Your task to perform on an android device: open app "Life360: Find Family & Friends" (install if not already installed), go to login, and select forgot password Image 0: 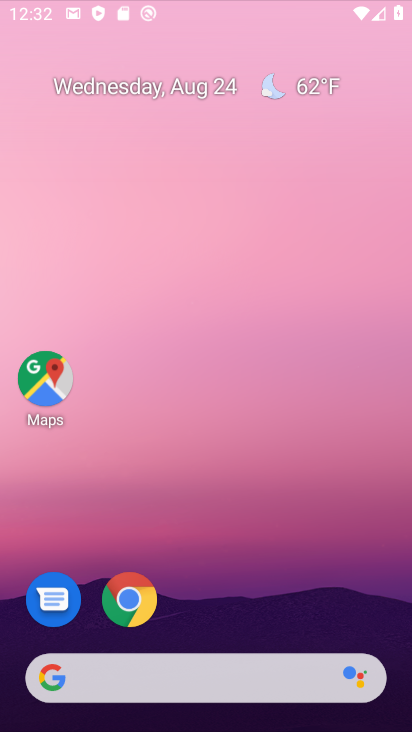
Step 0: drag from (139, 68) to (174, 21)
Your task to perform on an android device: open app "Life360: Find Family & Friends" (install if not already installed), go to login, and select forgot password Image 1: 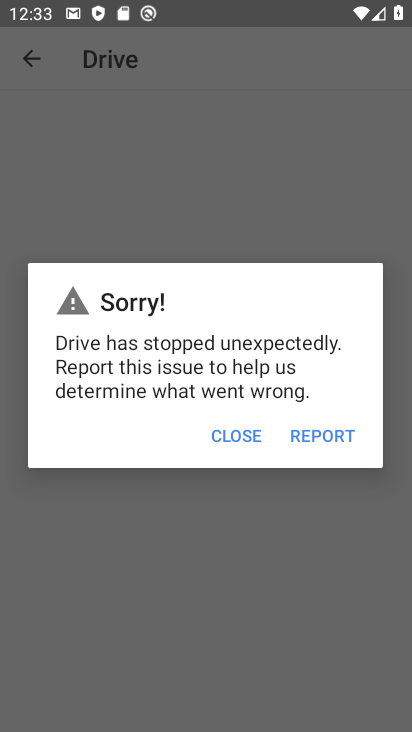
Step 1: click (358, 544)
Your task to perform on an android device: open app "Life360: Find Family & Friends" (install if not already installed), go to login, and select forgot password Image 2: 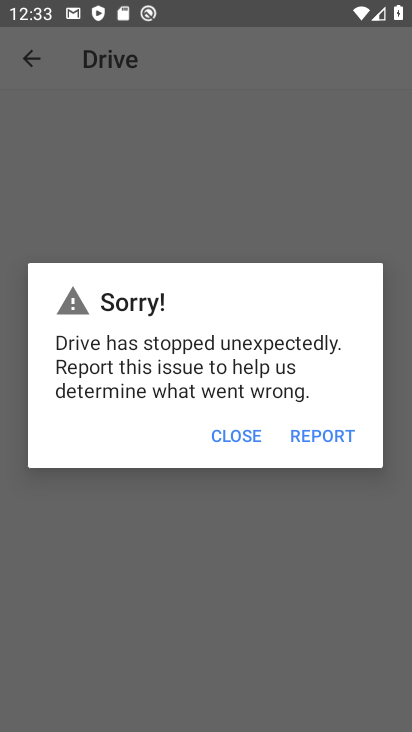
Step 2: task complete